Your task to perform on an android device: empty trash in google photos Image 0: 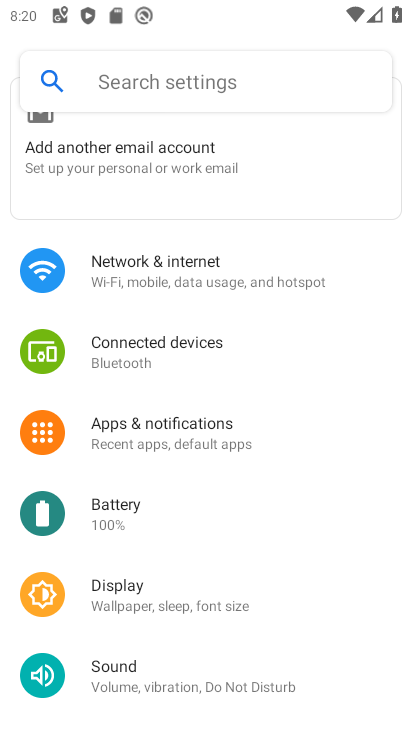
Step 0: press home button
Your task to perform on an android device: empty trash in google photos Image 1: 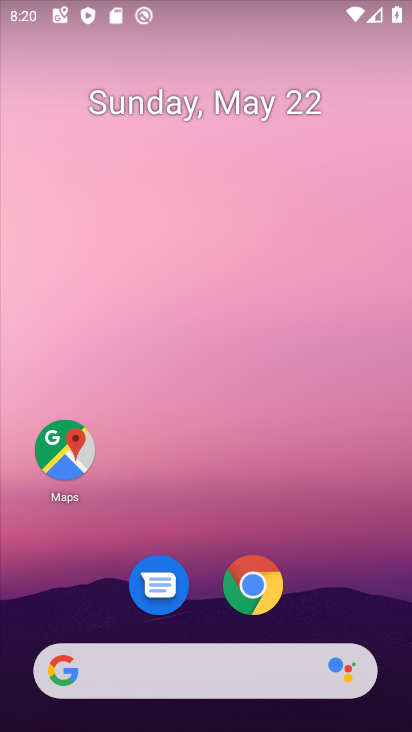
Step 1: drag from (307, 497) to (250, 0)
Your task to perform on an android device: empty trash in google photos Image 2: 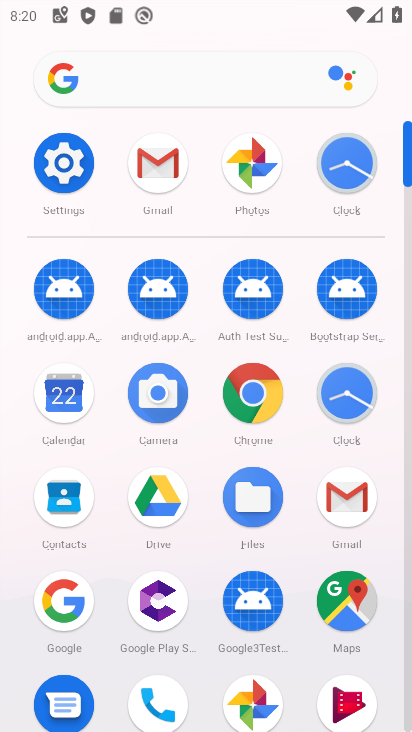
Step 2: click (240, 255)
Your task to perform on an android device: empty trash in google photos Image 3: 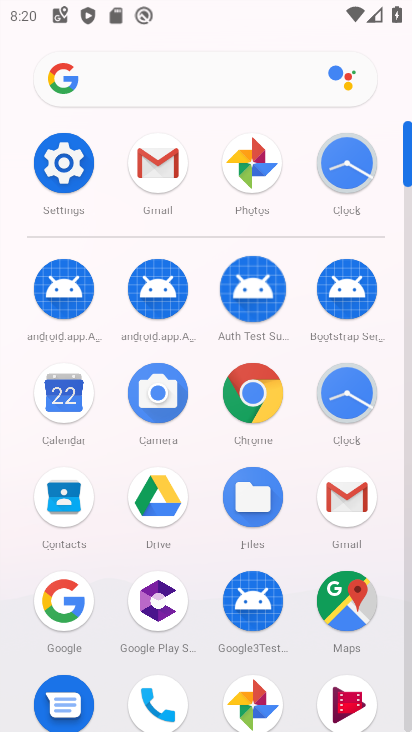
Step 3: click (235, 163)
Your task to perform on an android device: empty trash in google photos Image 4: 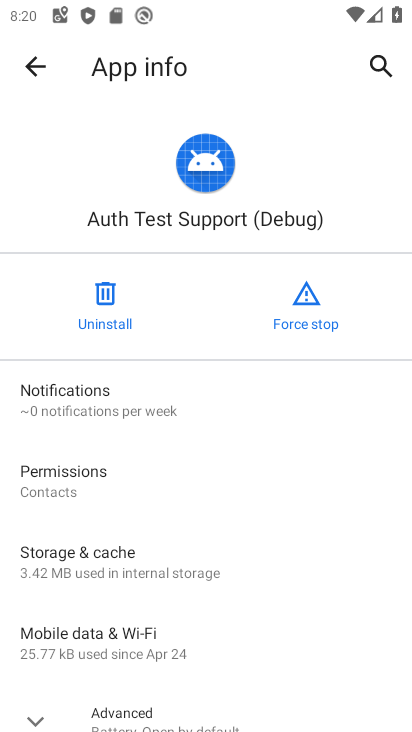
Step 4: click (36, 52)
Your task to perform on an android device: empty trash in google photos Image 5: 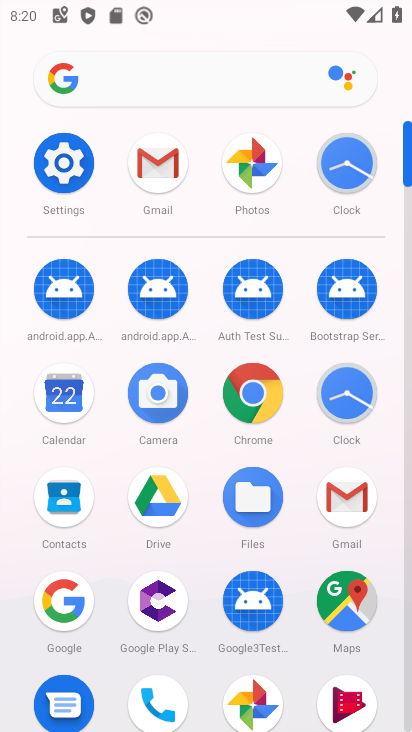
Step 5: click (247, 166)
Your task to perform on an android device: empty trash in google photos Image 6: 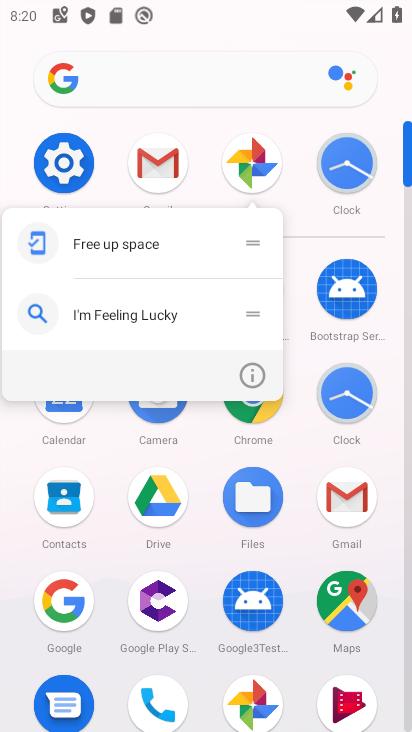
Step 6: click (250, 160)
Your task to perform on an android device: empty trash in google photos Image 7: 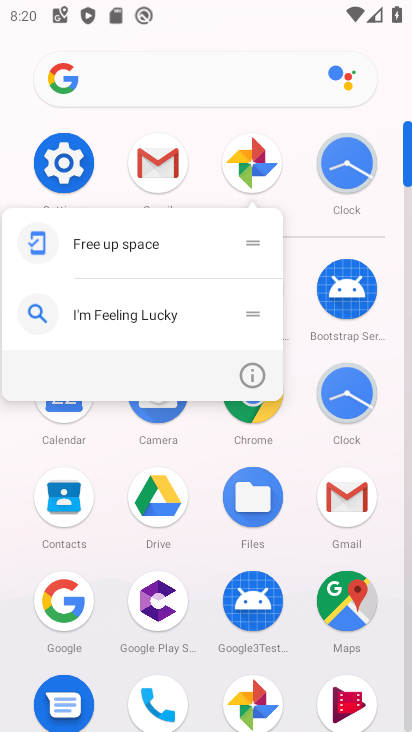
Step 7: click (254, 138)
Your task to perform on an android device: empty trash in google photos Image 8: 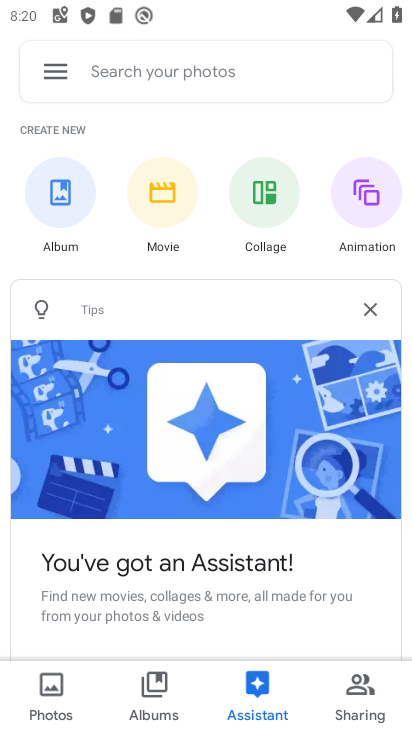
Step 8: click (59, 55)
Your task to perform on an android device: empty trash in google photos Image 9: 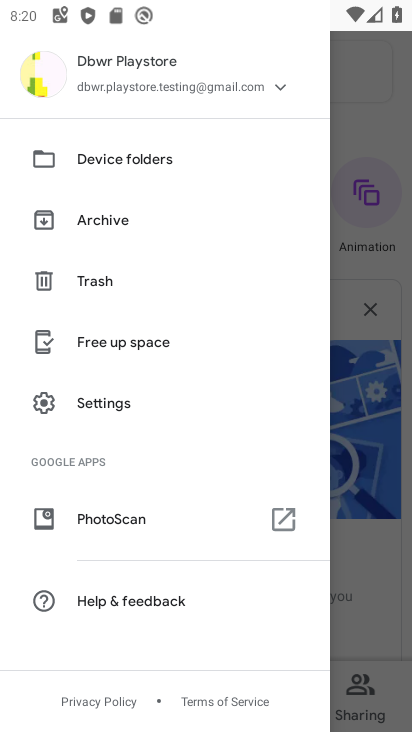
Step 9: click (106, 278)
Your task to perform on an android device: empty trash in google photos Image 10: 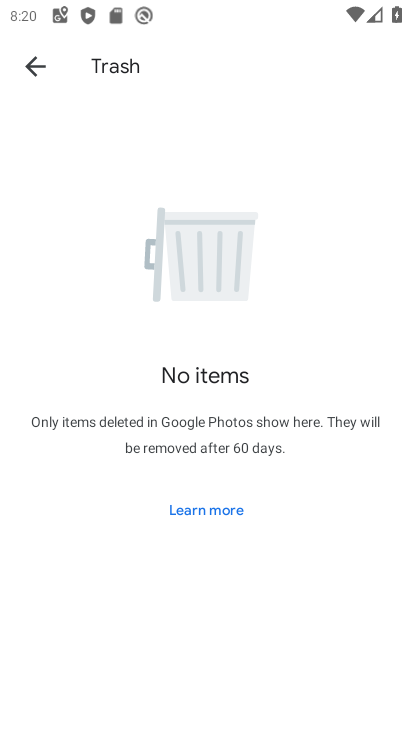
Step 10: task complete